Your task to perform on an android device: see creations saved in the google photos Image 0: 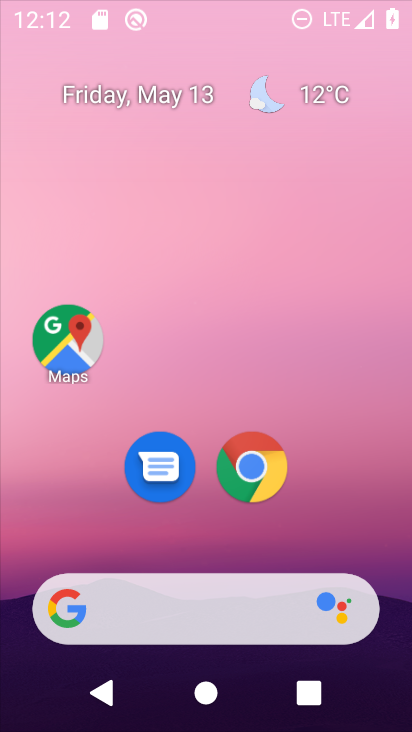
Step 0: drag from (298, 71) to (298, 3)
Your task to perform on an android device: see creations saved in the google photos Image 1: 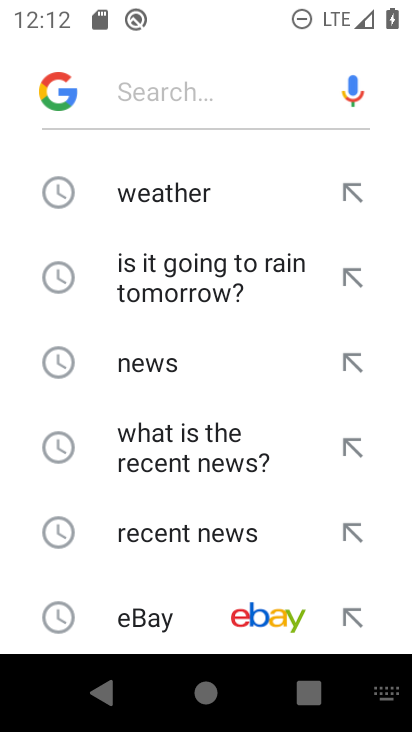
Step 1: press back button
Your task to perform on an android device: see creations saved in the google photos Image 2: 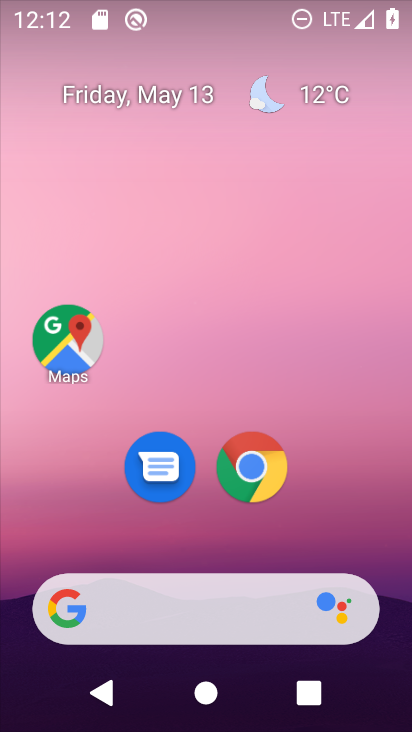
Step 2: drag from (339, 509) to (279, 19)
Your task to perform on an android device: see creations saved in the google photos Image 3: 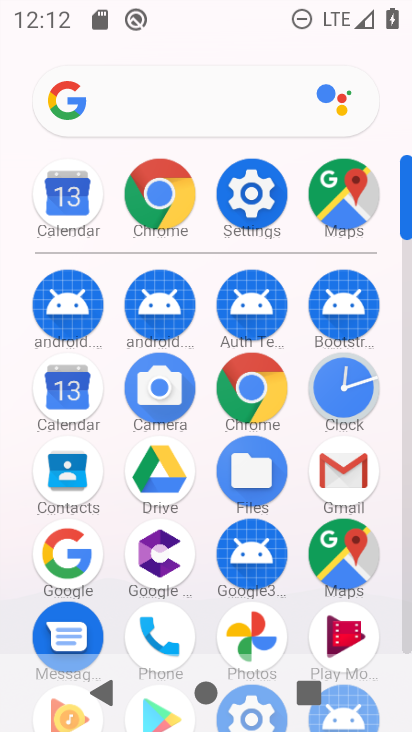
Step 3: drag from (4, 500) to (18, 323)
Your task to perform on an android device: see creations saved in the google photos Image 4: 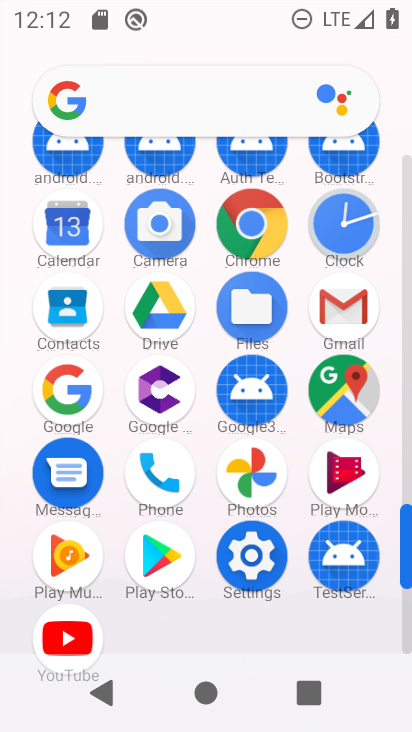
Step 4: click (250, 464)
Your task to perform on an android device: see creations saved in the google photos Image 5: 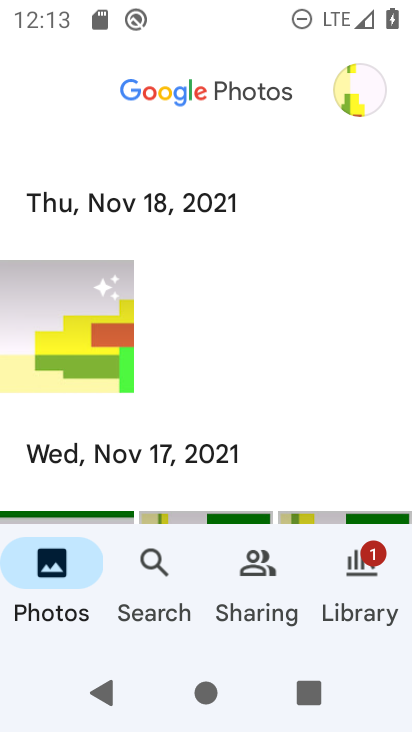
Step 5: task complete